Your task to perform on an android device: toggle javascript in the chrome app Image 0: 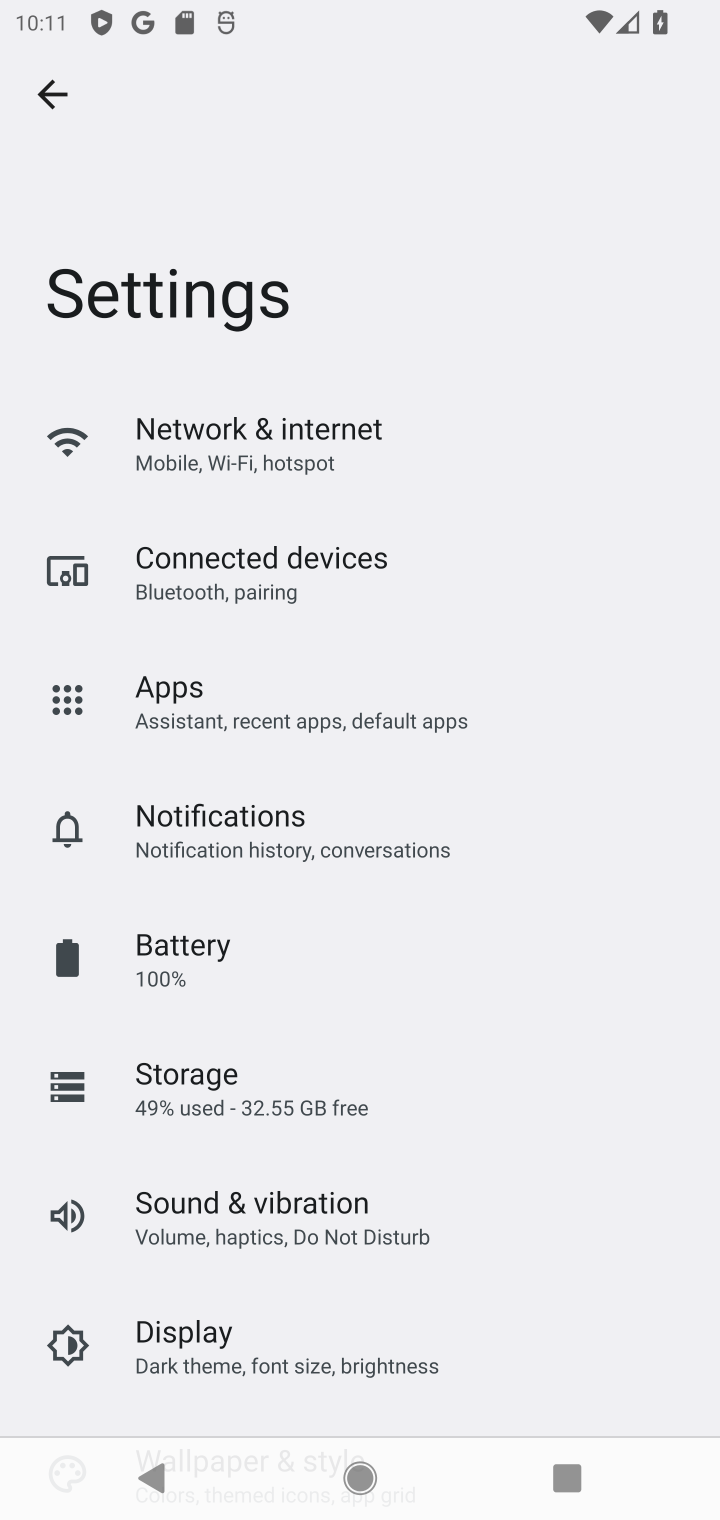
Step 0: press home button
Your task to perform on an android device: toggle javascript in the chrome app Image 1: 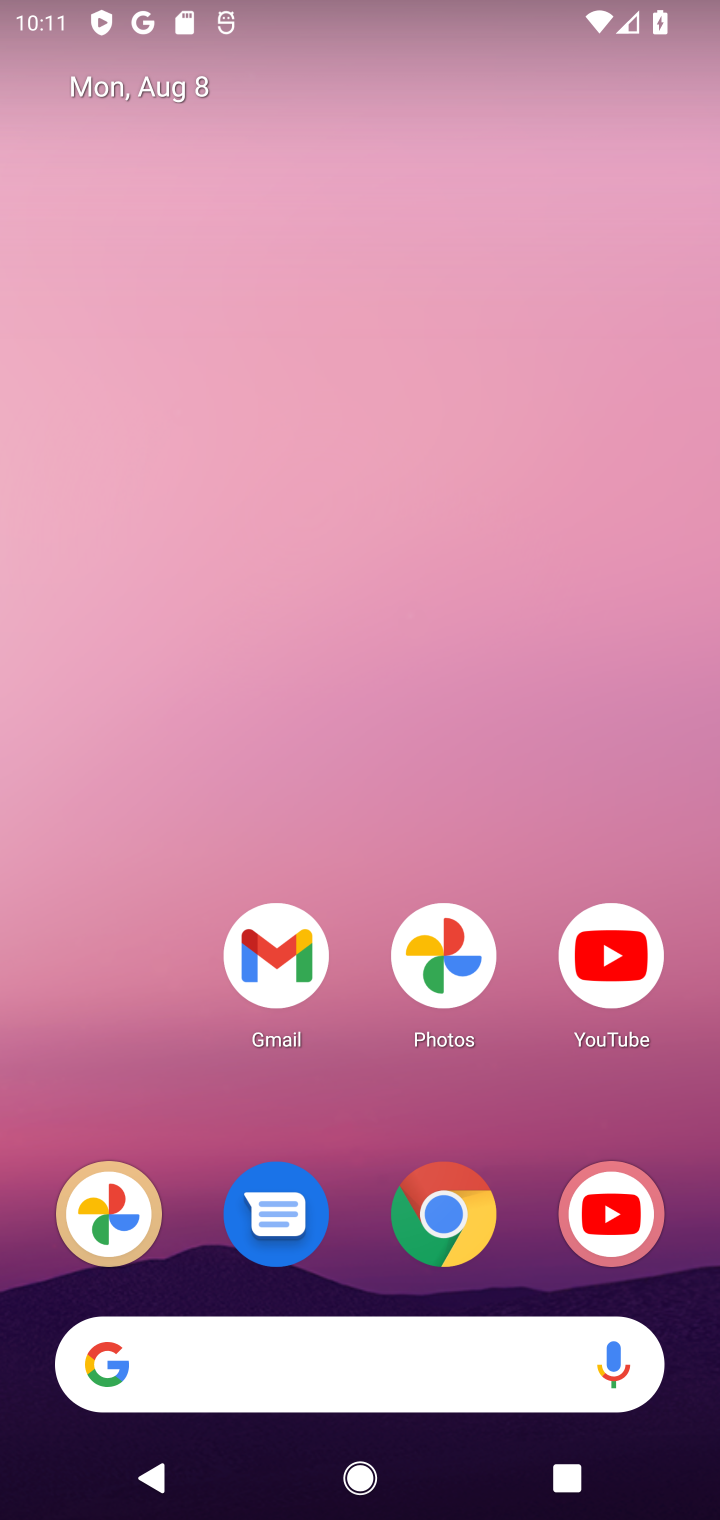
Step 1: drag from (56, 1466) to (480, 434)
Your task to perform on an android device: toggle javascript in the chrome app Image 2: 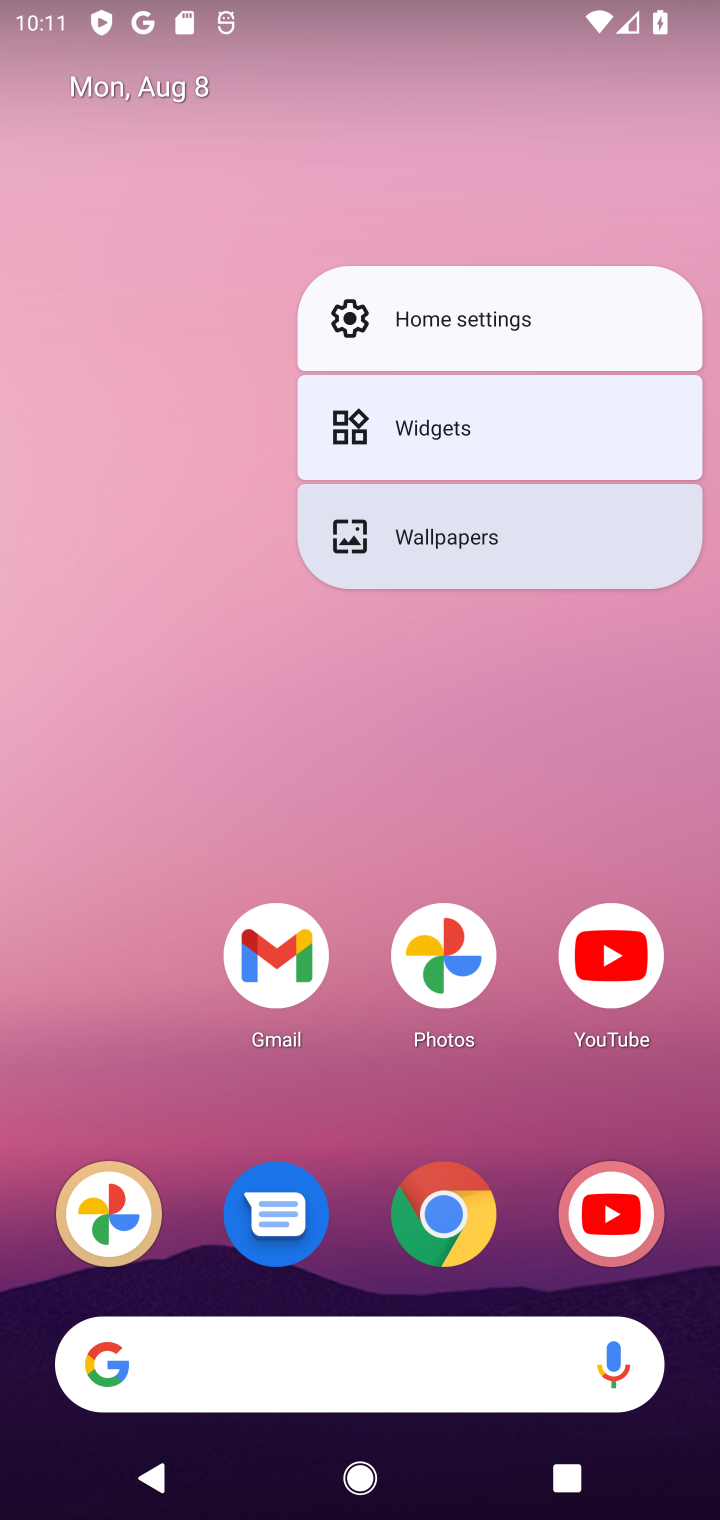
Step 2: click (428, 1213)
Your task to perform on an android device: toggle javascript in the chrome app Image 3: 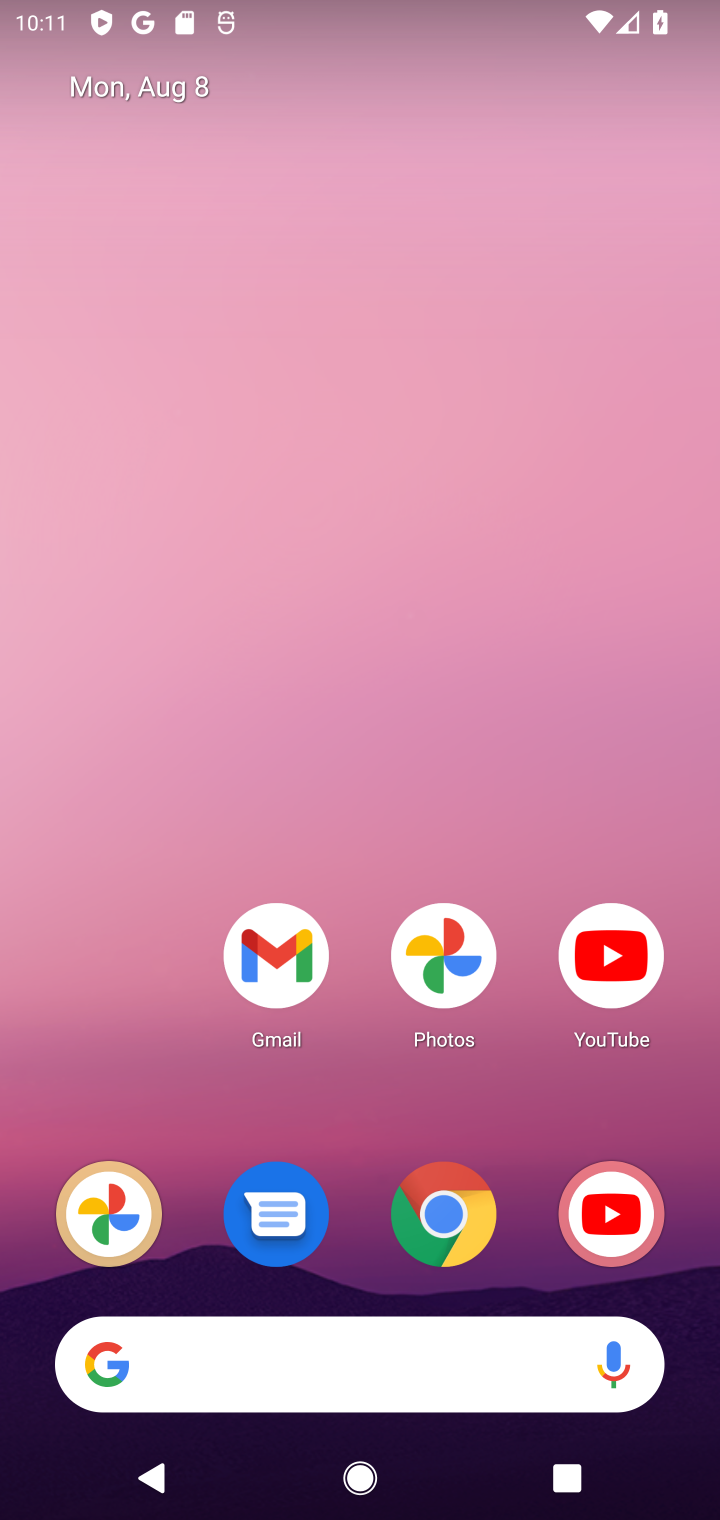
Step 3: click (459, 1205)
Your task to perform on an android device: toggle javascript in the chrome app Image 4: 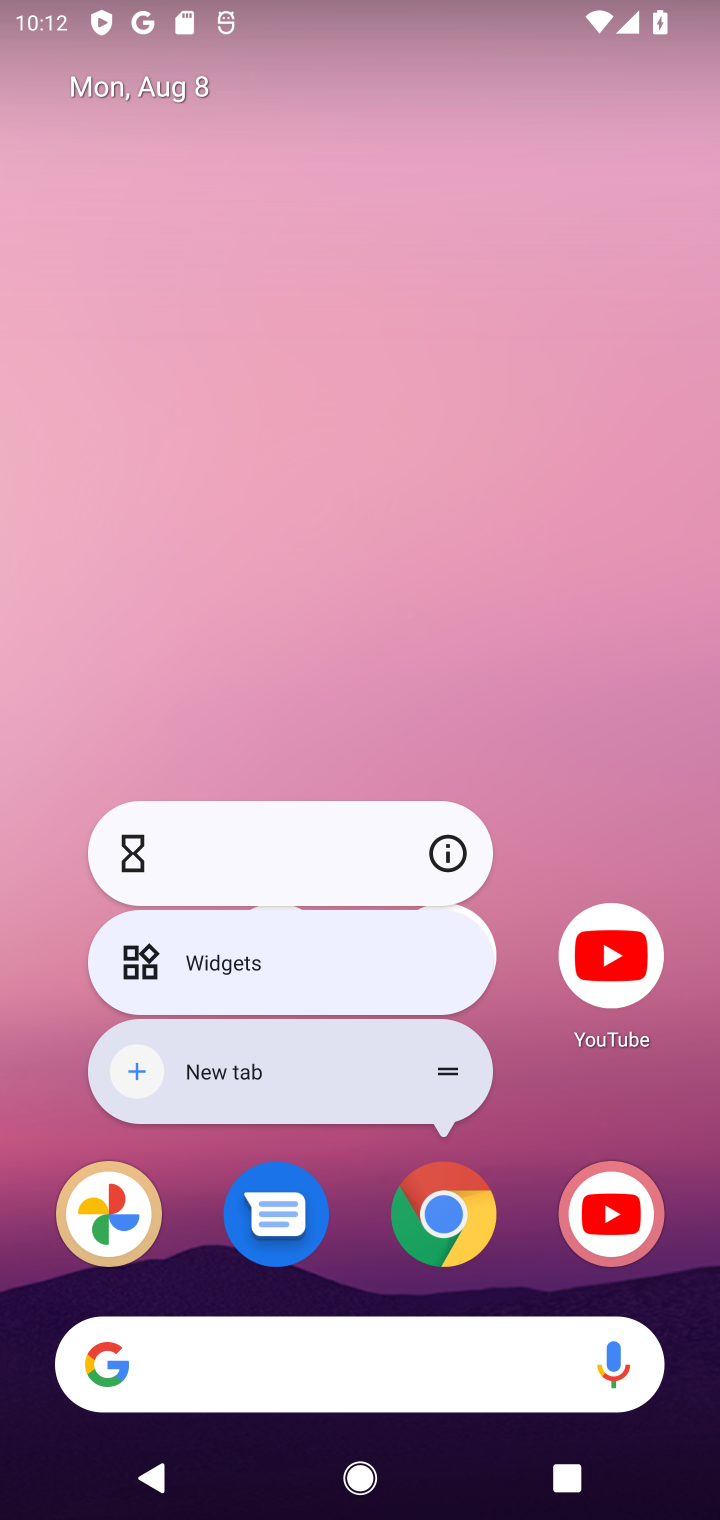
Step 4: task complete